Your task to perform on an android device: clear history in the chrome app Image 0: 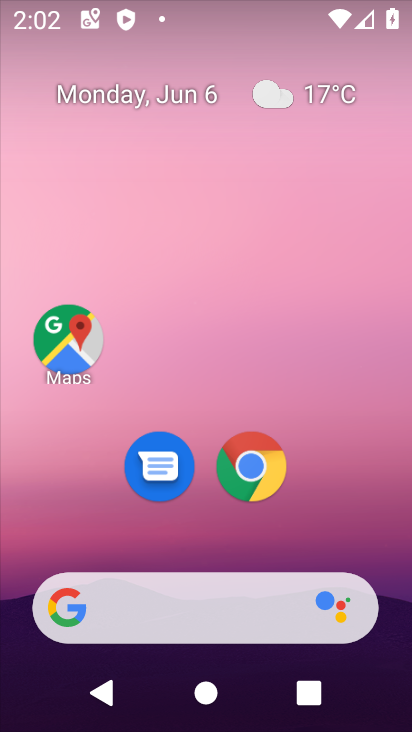
Step 0: click (256, 441)
Your task to perform on an android device: clear history in the chrome app Image 1: 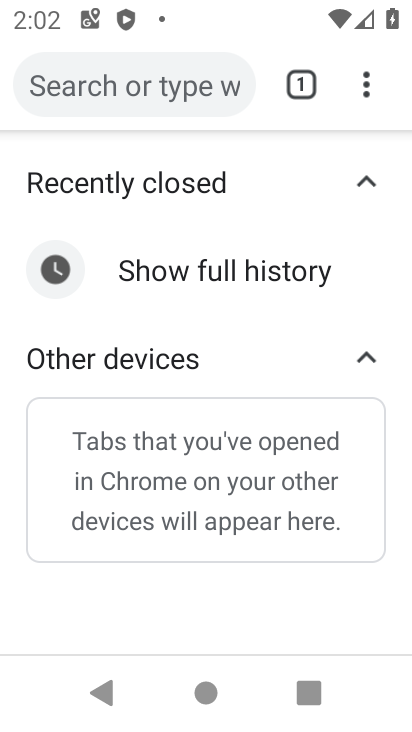
Step 1: task complete